Your task to perform on an android device: Go to settings Image 0: 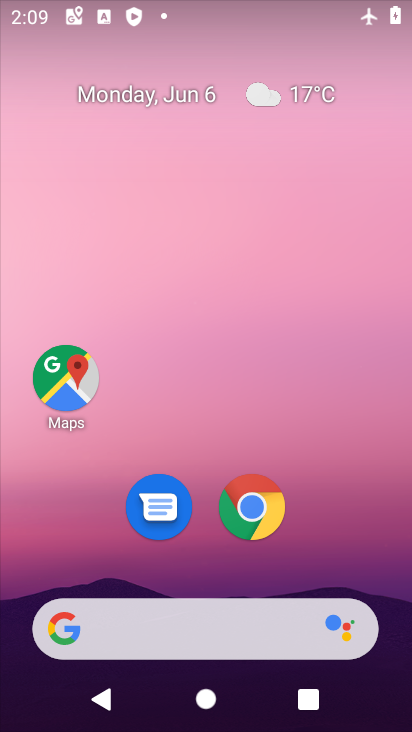
Step 0: drag from (207, 417) to (231, 2)
Your task to perform on an android device: Go to settings Image 1: 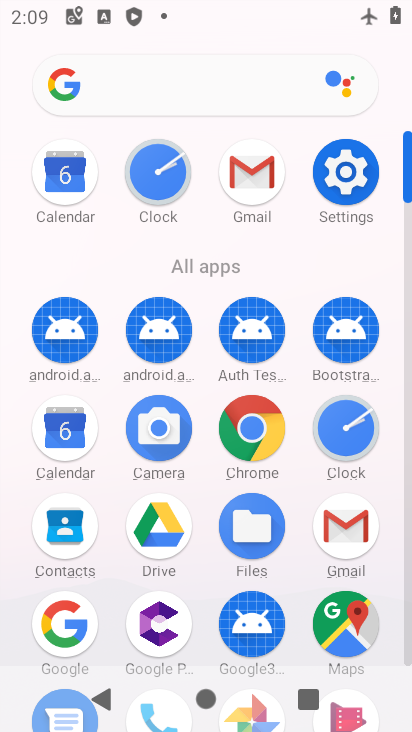
Step 1: click (331, 173)
Your task to perform on an android device: Go to settings Image 2: 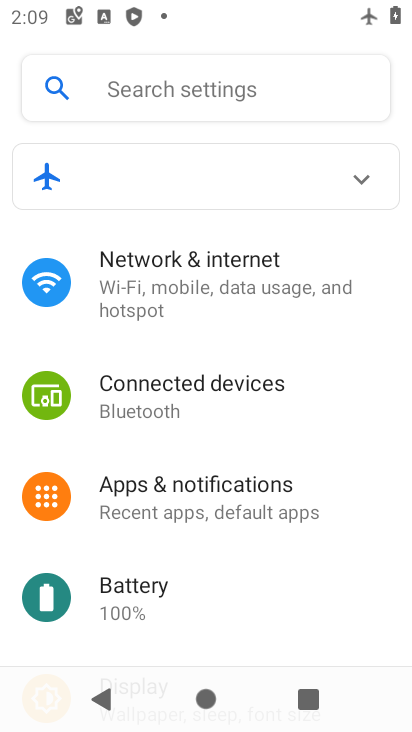
Step 2: click (234, 269)
Your task to perform on an android device: Go to settings Image 3: 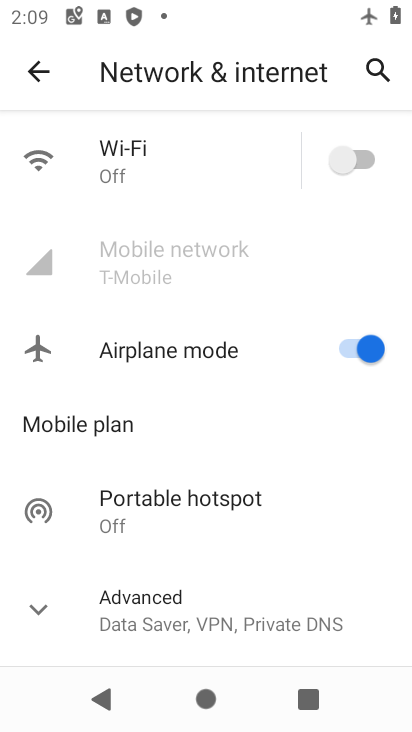
Step 3: click (46, 74)
Your task to perform on an android device: Go to settings Image 4: 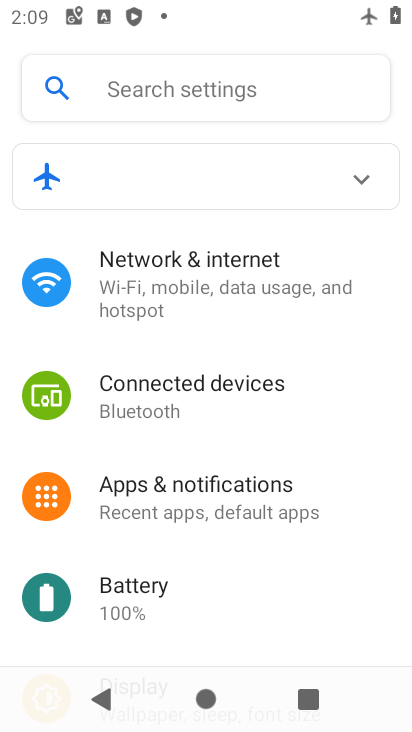
Step 4: task complete